Your task to perform on an android device: open a new tab in the chrome app Image 0: 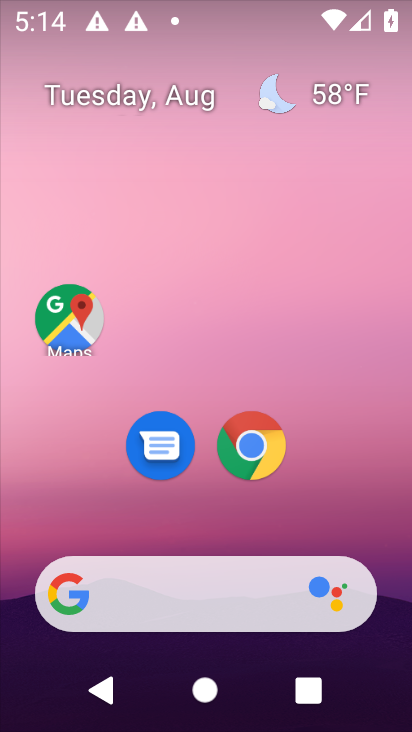
Step 0: click (254, 451)
Your task to perform on an android device: open a new tab in the chrome app Image 1: 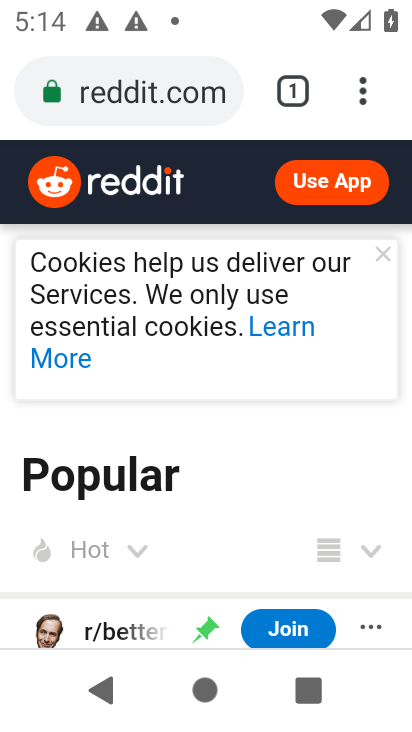
Step 1: click (295, 88)
Your task to perform on an android device: open a new tab in the chrome app Image 2: 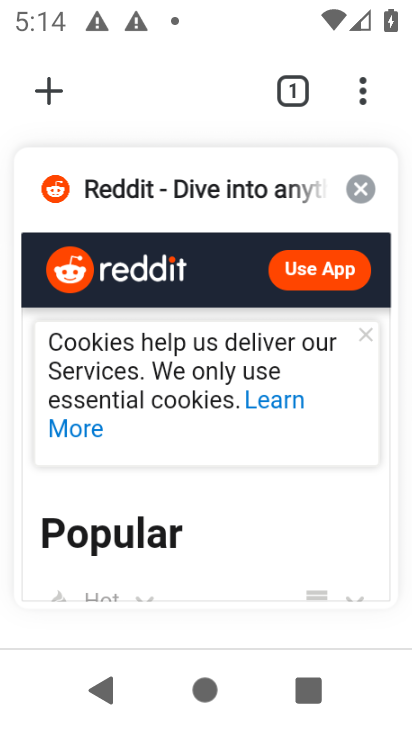
Step 2: click (46, 90)
Your task to perform on an android device: open a new tab in the chrome app Image 3: 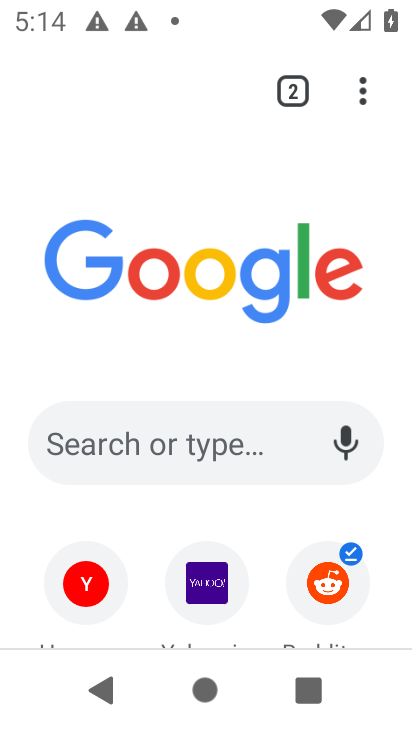
Step 3: task complete